Your task to perform on an android device: turn on location history Image 0: 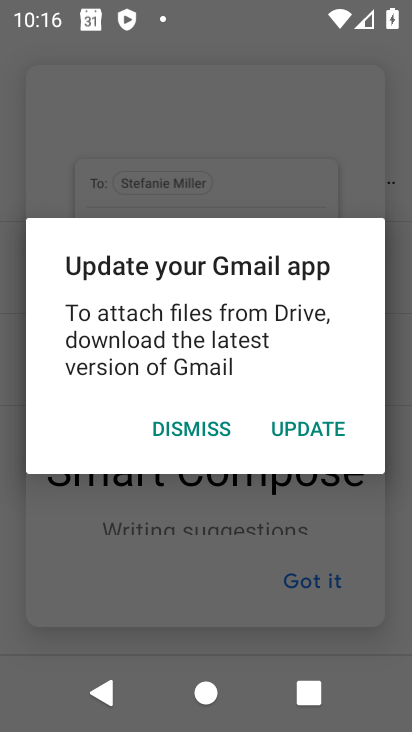
Step 0: press home button
Your task to perform on an android device: turn on location history Image 1: 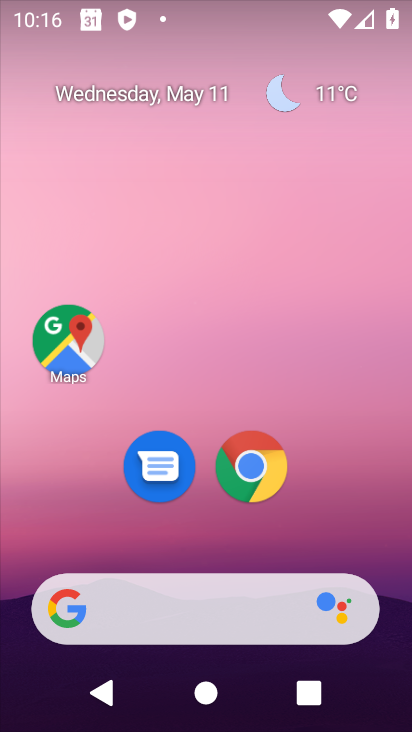
Step 1: drag from (341, 489) to (313, 220)
Your task to perform on an android device: turn on location history Image 2: 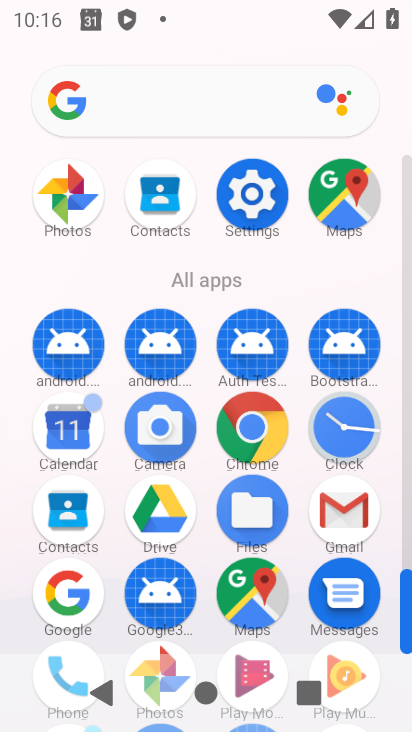
Step 2: click (244, 212)
Your task to perform on an android device: turn on location history Image 3: 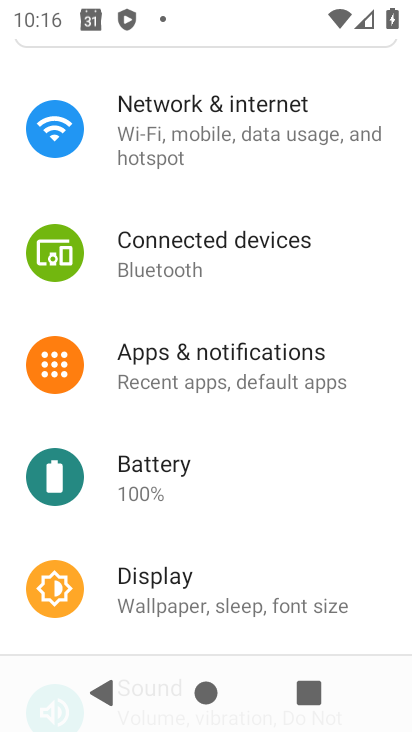
Step 3: drag from (275, 565) to (229, 332)
Your task to perform on an android device: turn on location history Image 4: 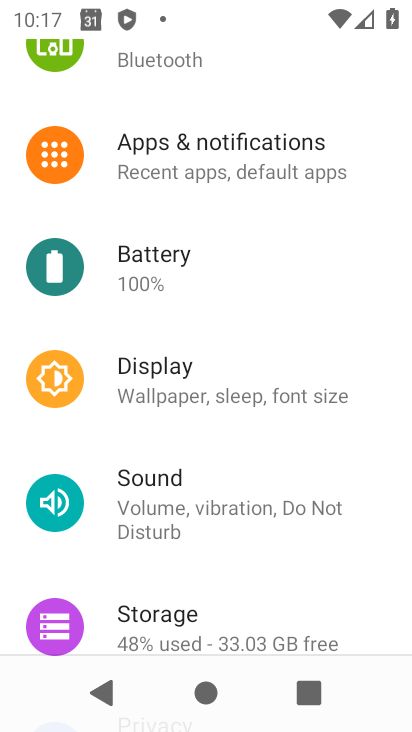
Step 4: drag from (248, 526) to (209, 264)
Your task to perform on an android device: turn on location history Image 5: 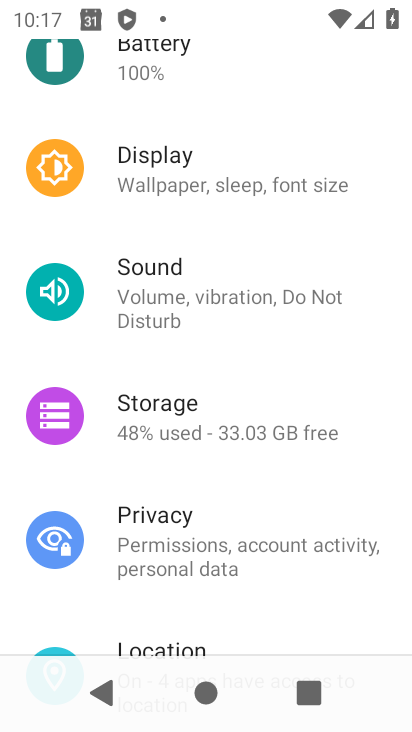
Step 5: drag from (260, 573) to (214, 370)
Your task to perform on an android device: turn on location history Image 6: 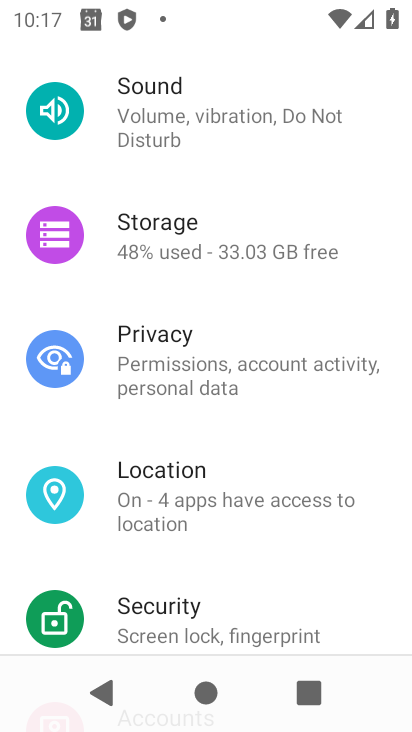
Step 6: click (186, 493)
Your task to perform on an android device: turn on location history Image 7: 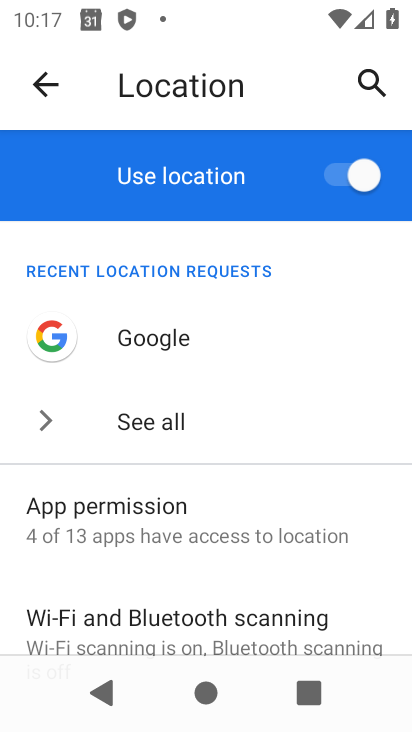
Step 7: drag from (276, 568) to (221, 283)
Your task to perform on an android device: turn on location history Image 8: 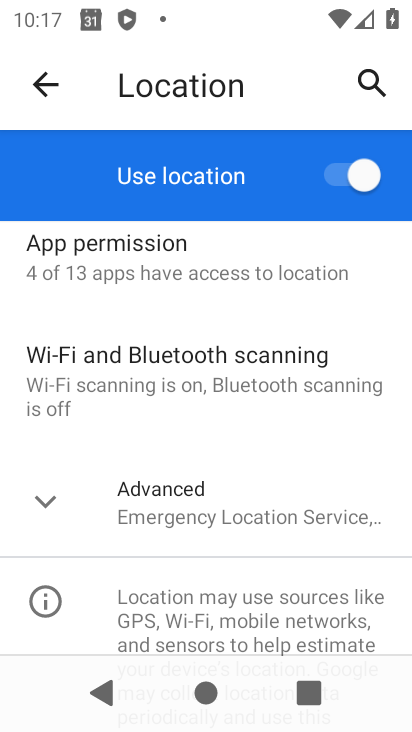
Step 8: click (269, 519)
Your task to perform on an android device: turn on location history Image 9: 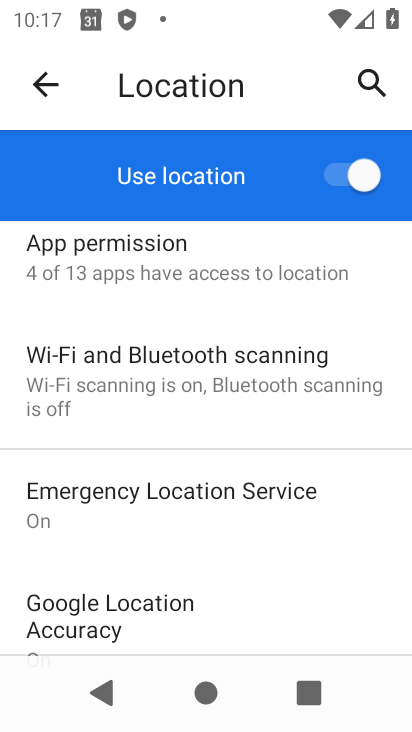
Step 9: drag from (304, 578) to (282, 419)
Your task to perform on an android device: turn on location history Image 10: 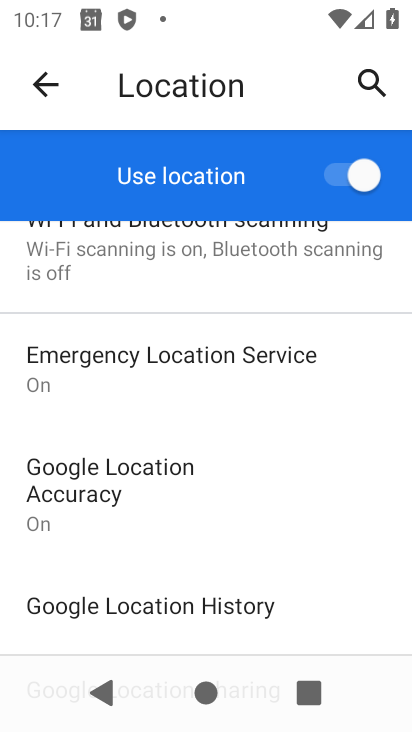
Step 10: click (248, 618)
Your task to perform on an android device: turn on location history Image 11: 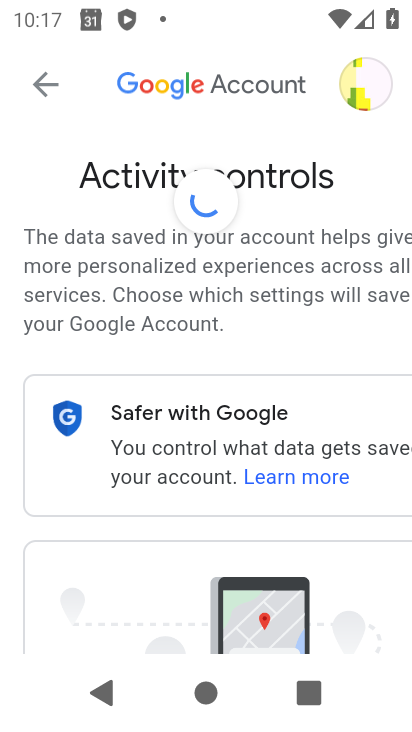
Step 11: task complete